Your task to perform on an android device: Search for a new lawnmower on home depot Image 0: 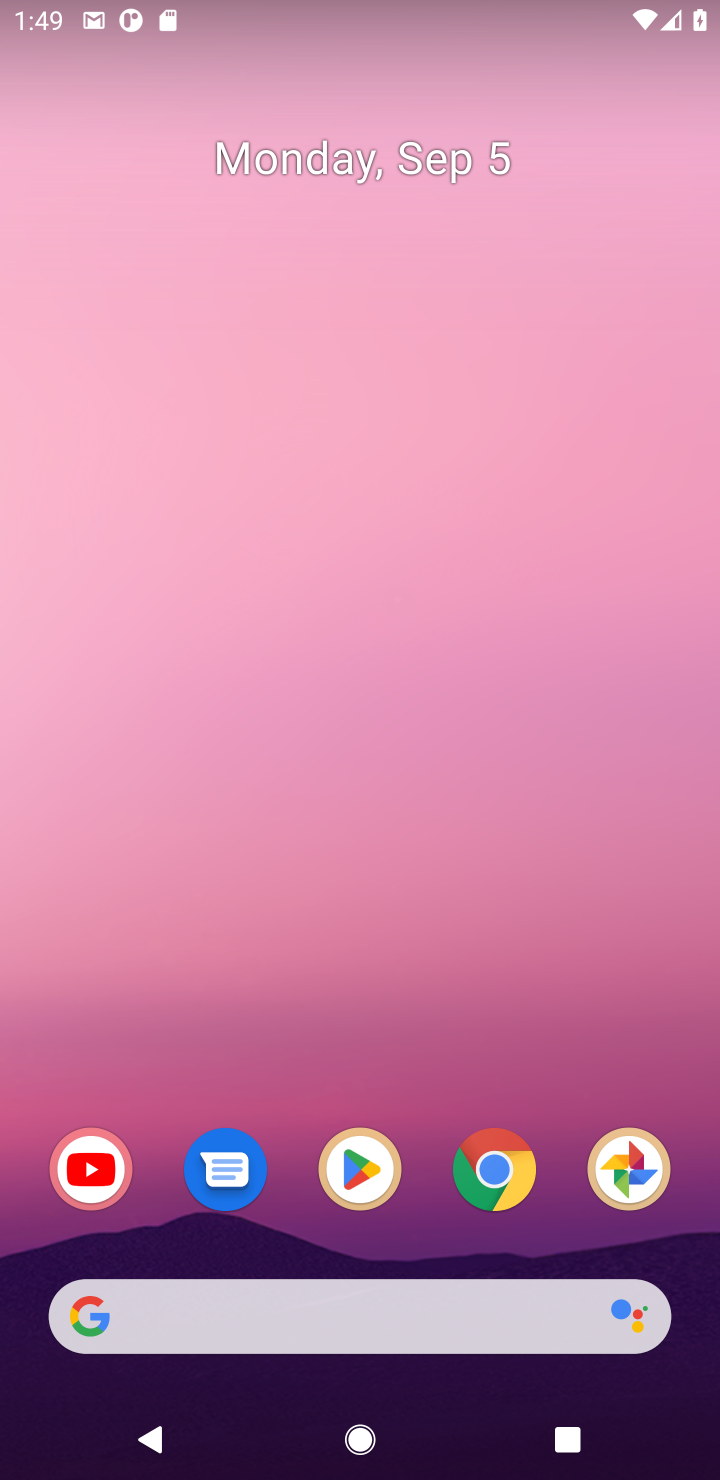
Step 0: click (614, 877)
Your task to perform on an android device: Search for a new lawnmower on home depot Image 1: 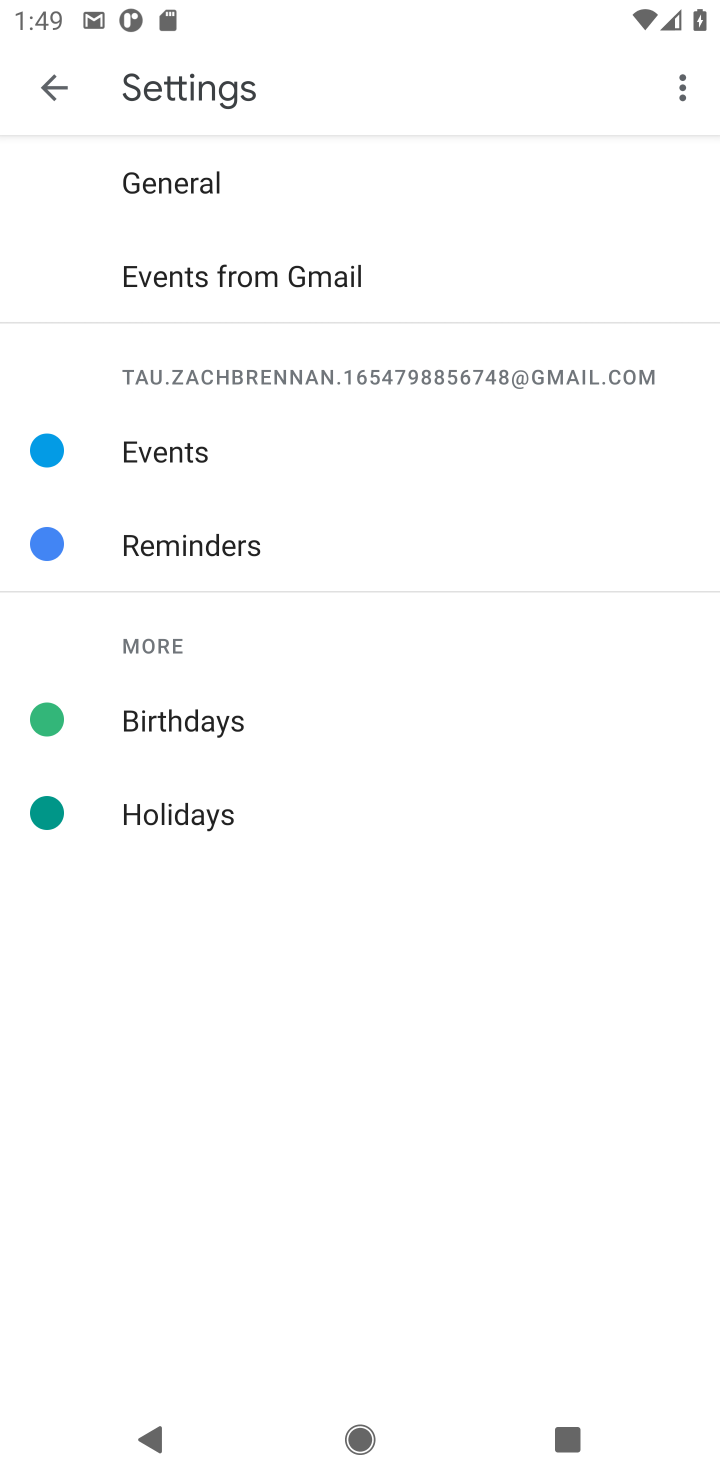
Step 1: press home button
Your task to perform on an android device: Search for a new lawnmower on home depot Image 2: 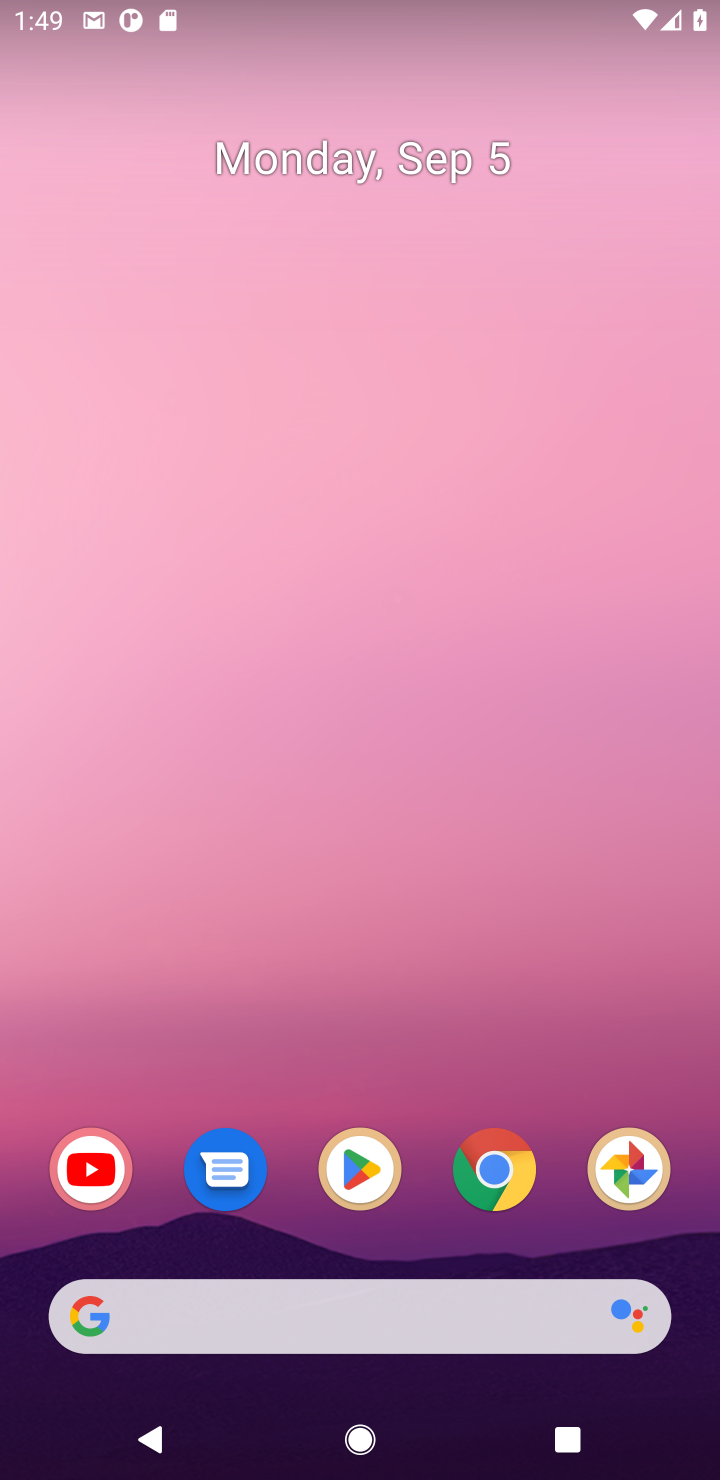
Step 2: click (99, 1197)
Your task to perform on an android device: Search for a new lawnmower on home depot Image 3: 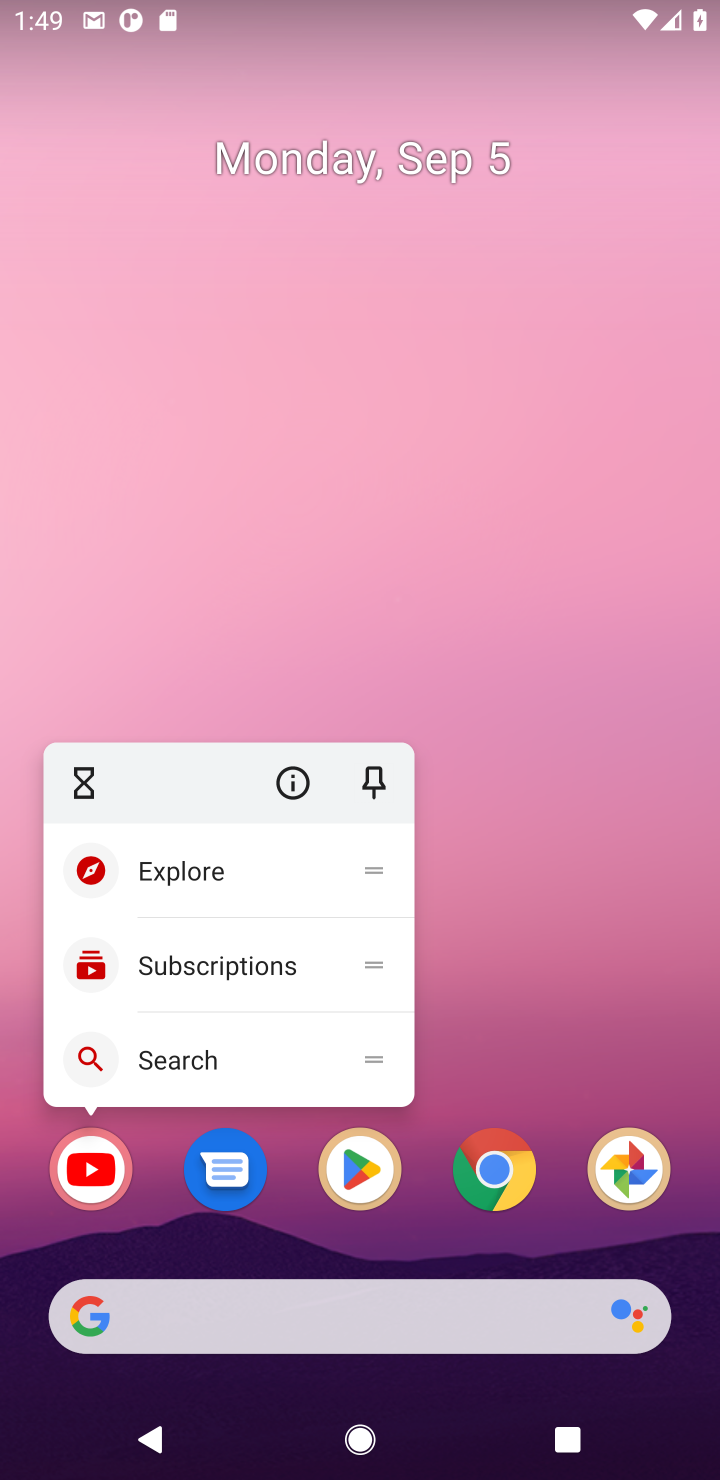
Step 3: click (99, 1197)
Your task to perform on an android device: Search for a new lawnmower on home depot Image 4: 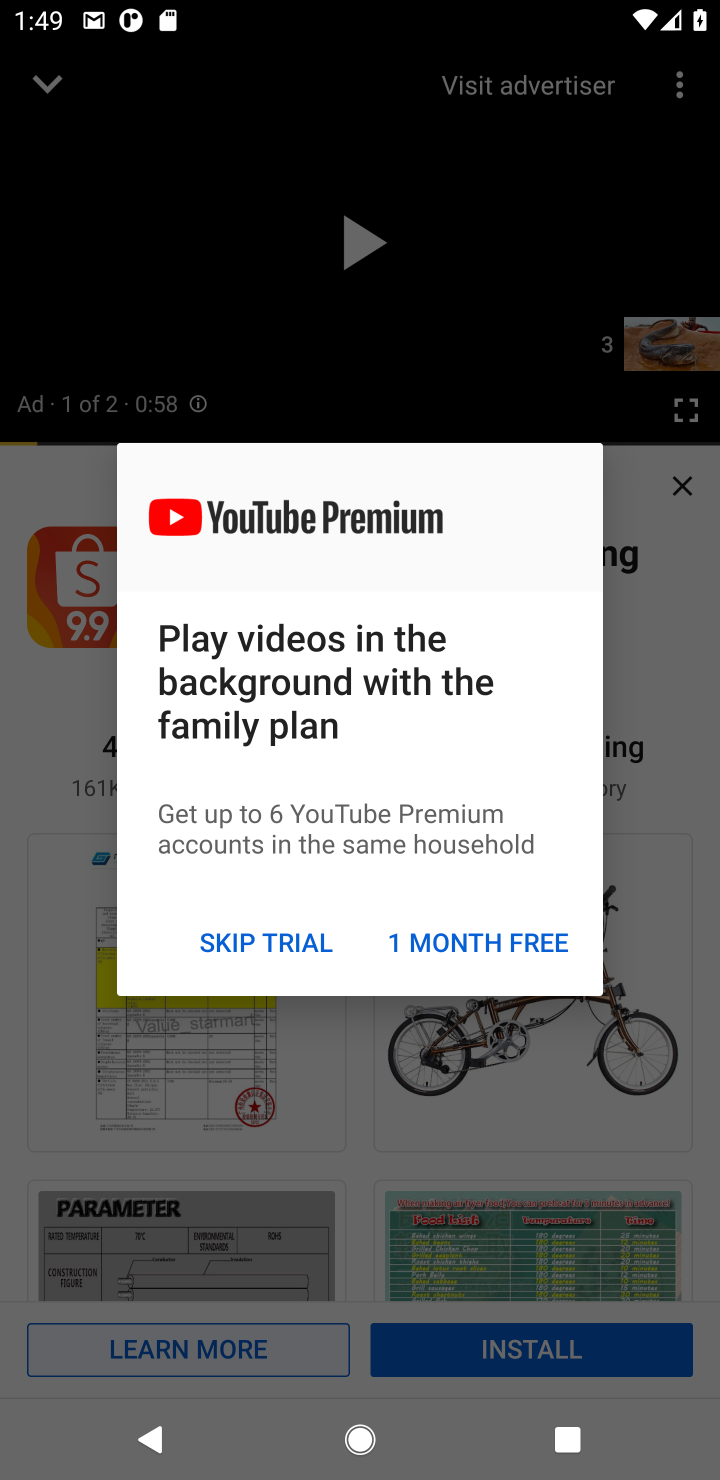
Step 4: click (303, 964)
Your task to perform on an android device: Search for a new lawnmower on home depot Image 5: 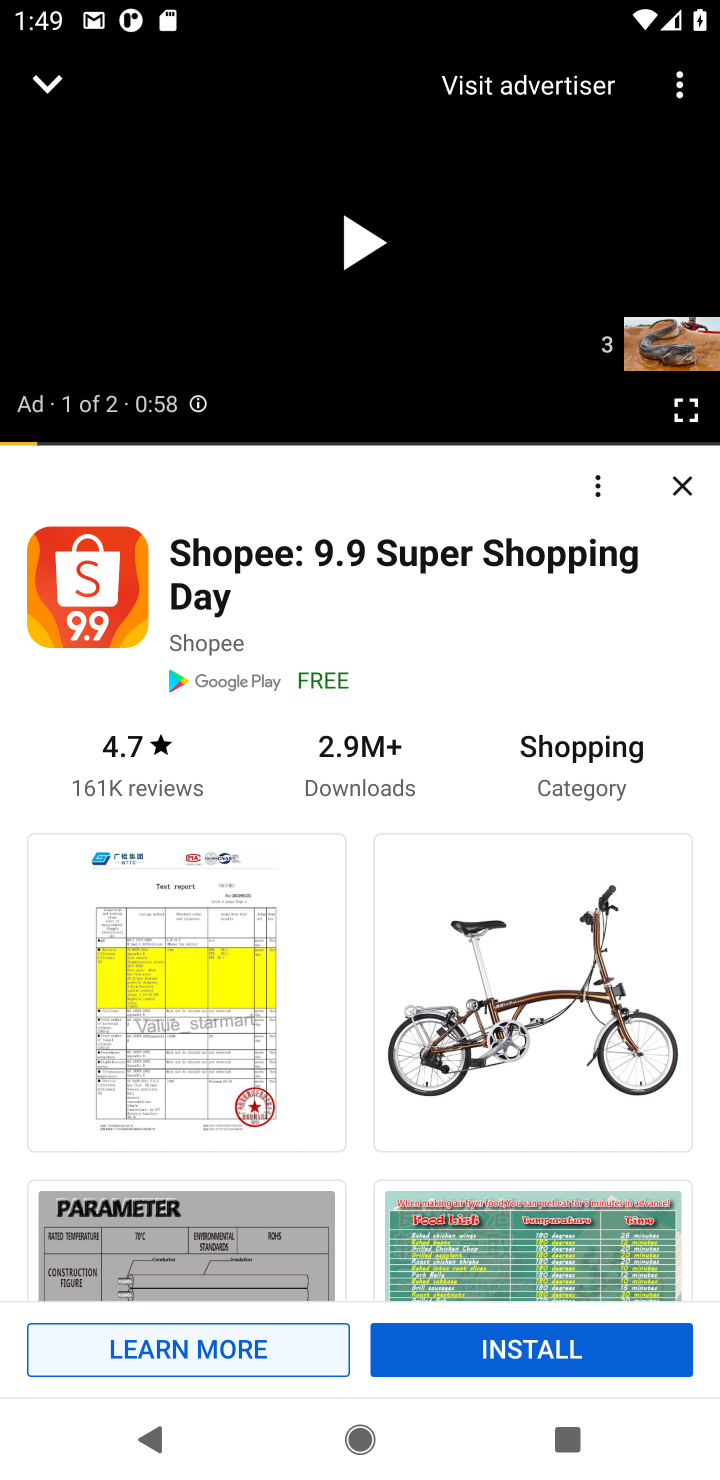
Step 5: click (347, 238)
Your task to perform on an android device: Search for a new lawnmower on home depot Image 6: 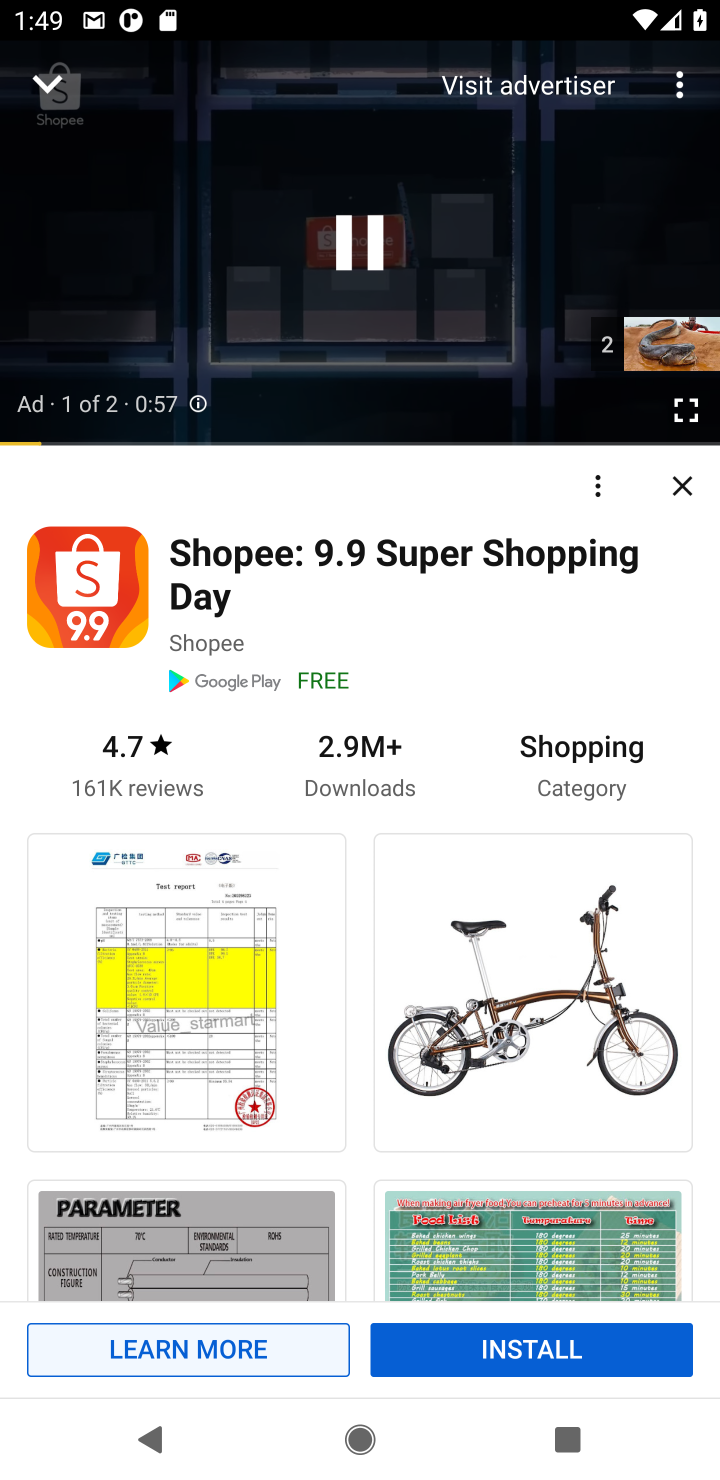
Step 6: click (689, 487)
Your task to perform on an android device: Search for a new lawnmower on home depot Image 7: 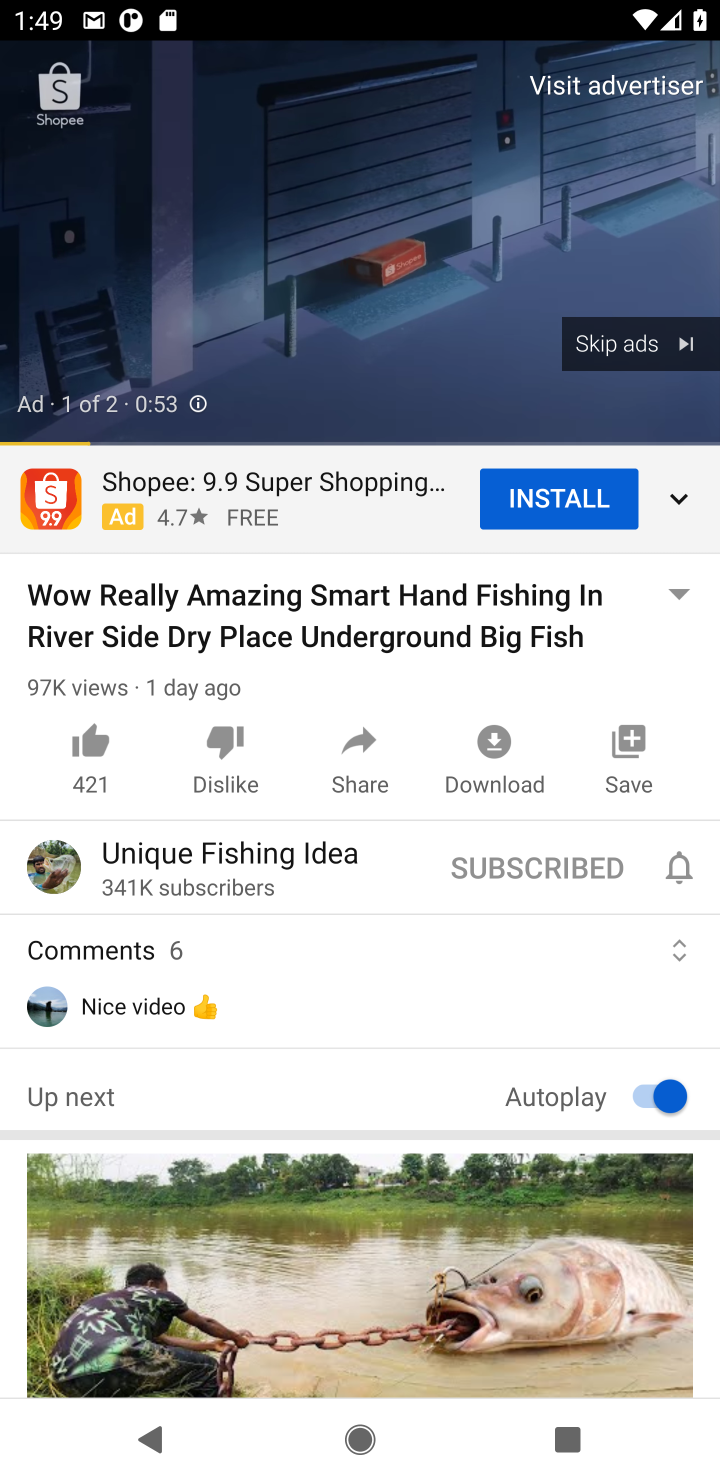
Step 7: click (660, 353)
Your task to perform on an android device: Search for a new lawnmower on home depot Image 8: 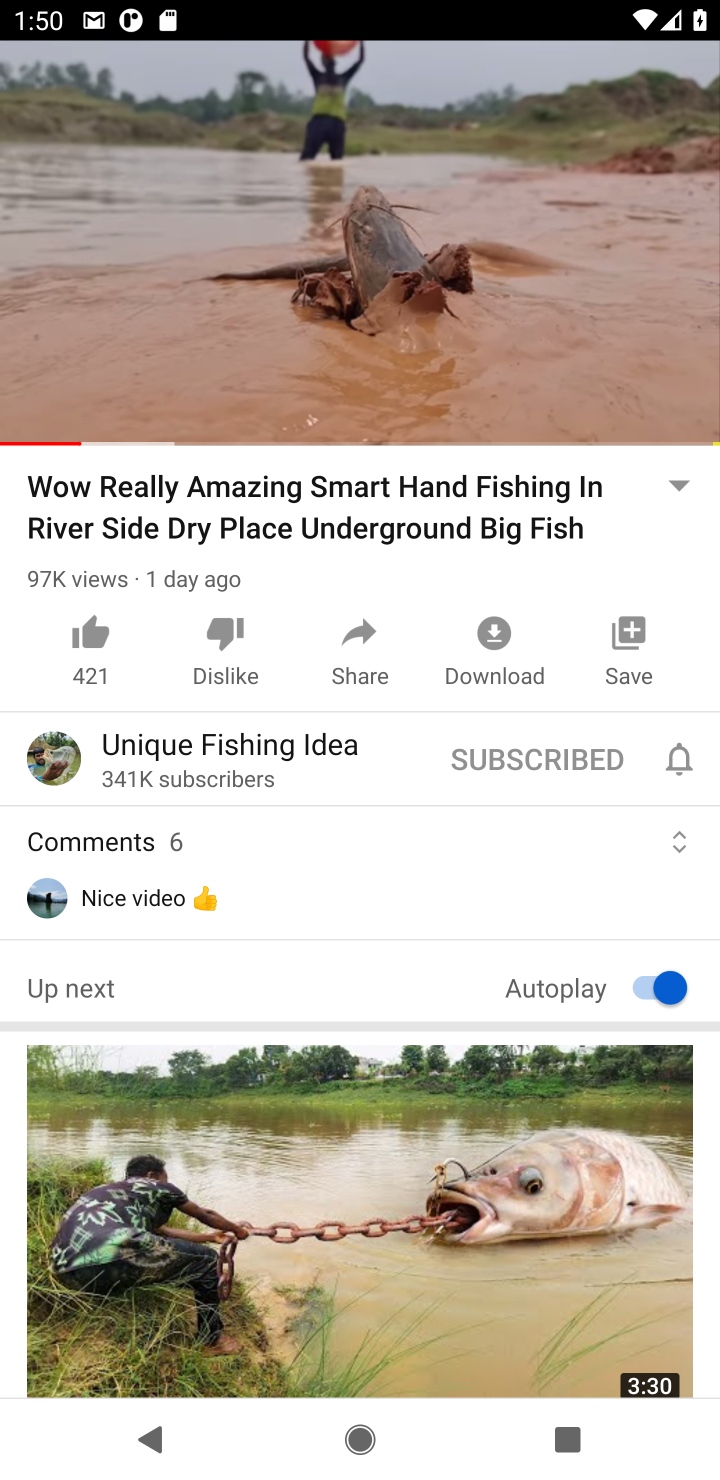
Step 8: task complete